Your task to perform on an android device: What's the weather today? Image 0: 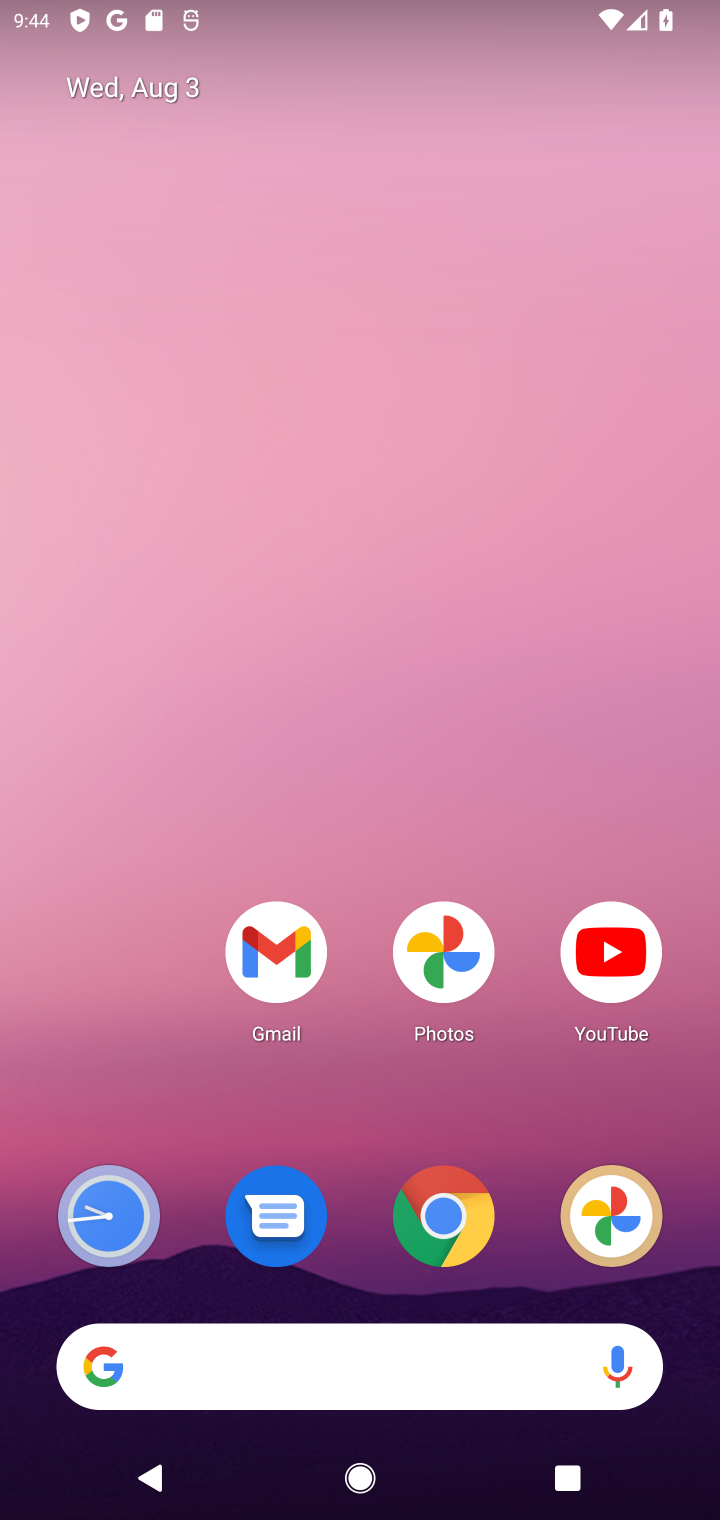
Step 0: click (251, 1349)
Your task to perform on an android device: What's the weather today? Image 1: 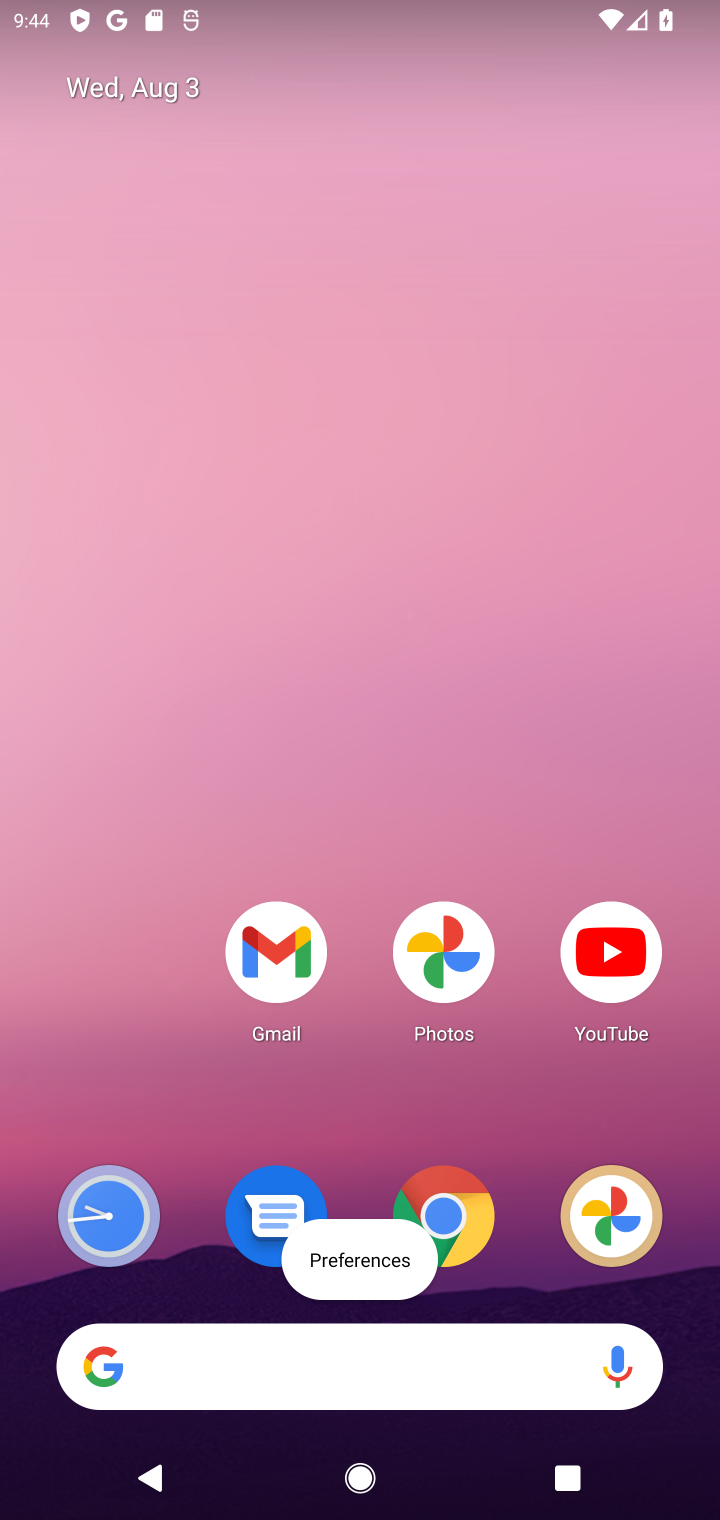
Step 1: click (277, 1361)
Your task to perform on an android device: What's the weather today? Image 2: 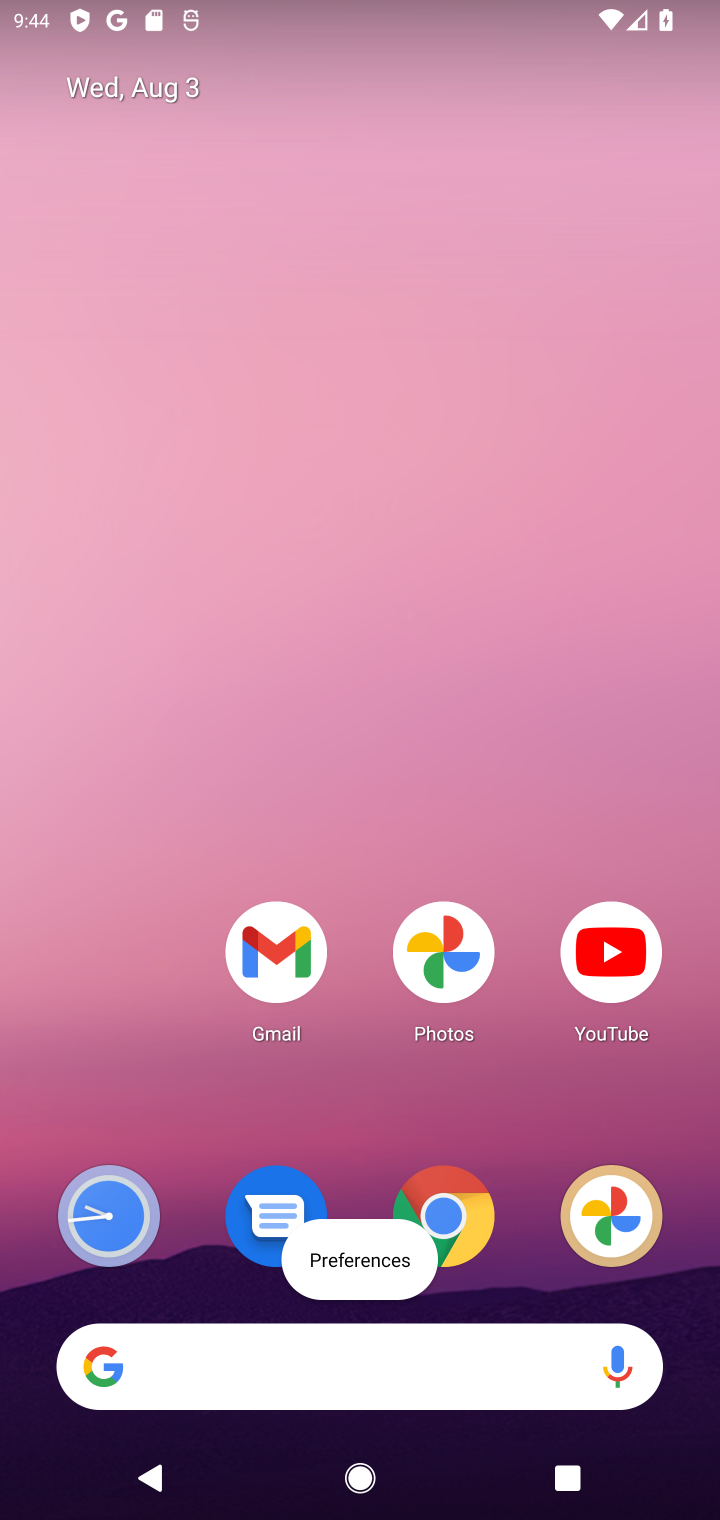
Step 2: click (347, 1379)
Your task to perform on an android device: What's the weather today? Image 3: 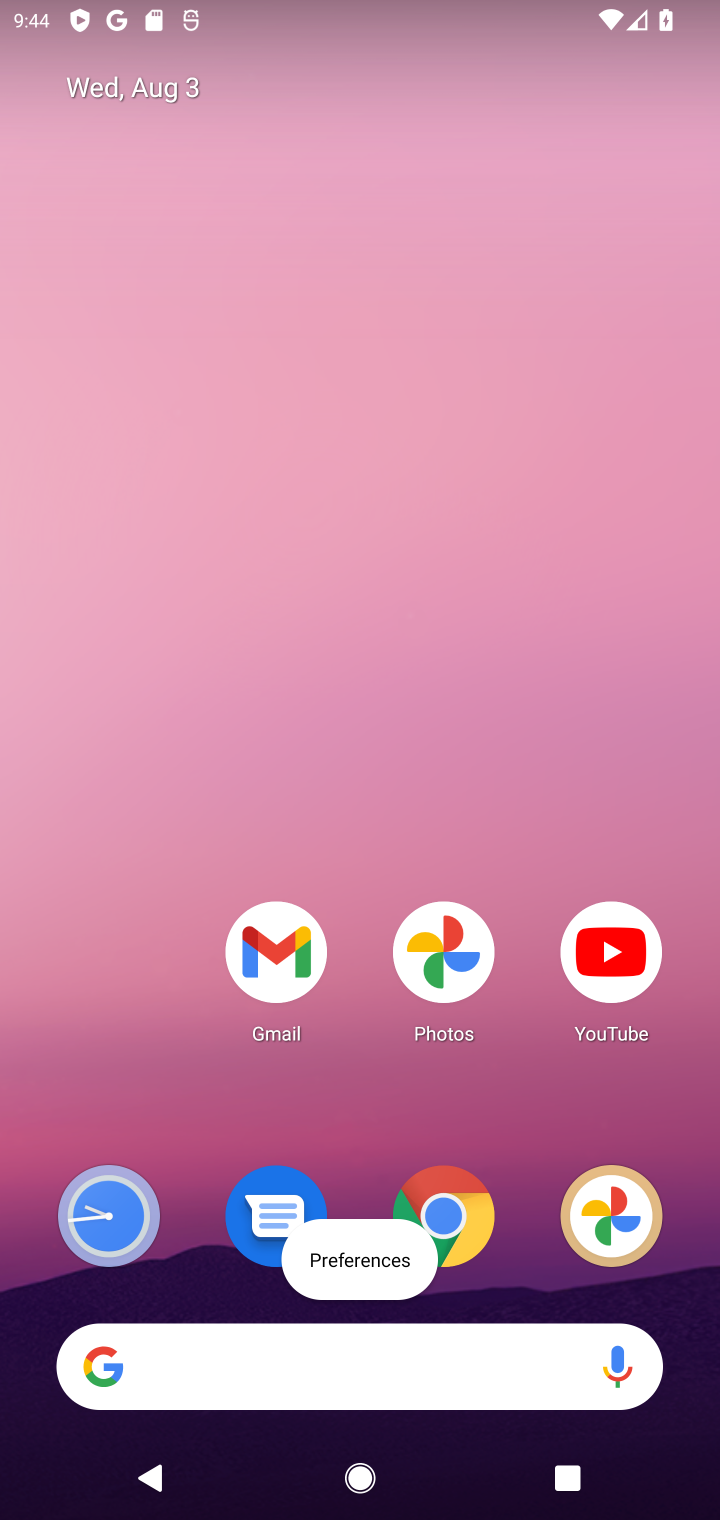
Step 3: click (321, 1351)
Your task to perform on an android device: What's the weather today? Image 4: 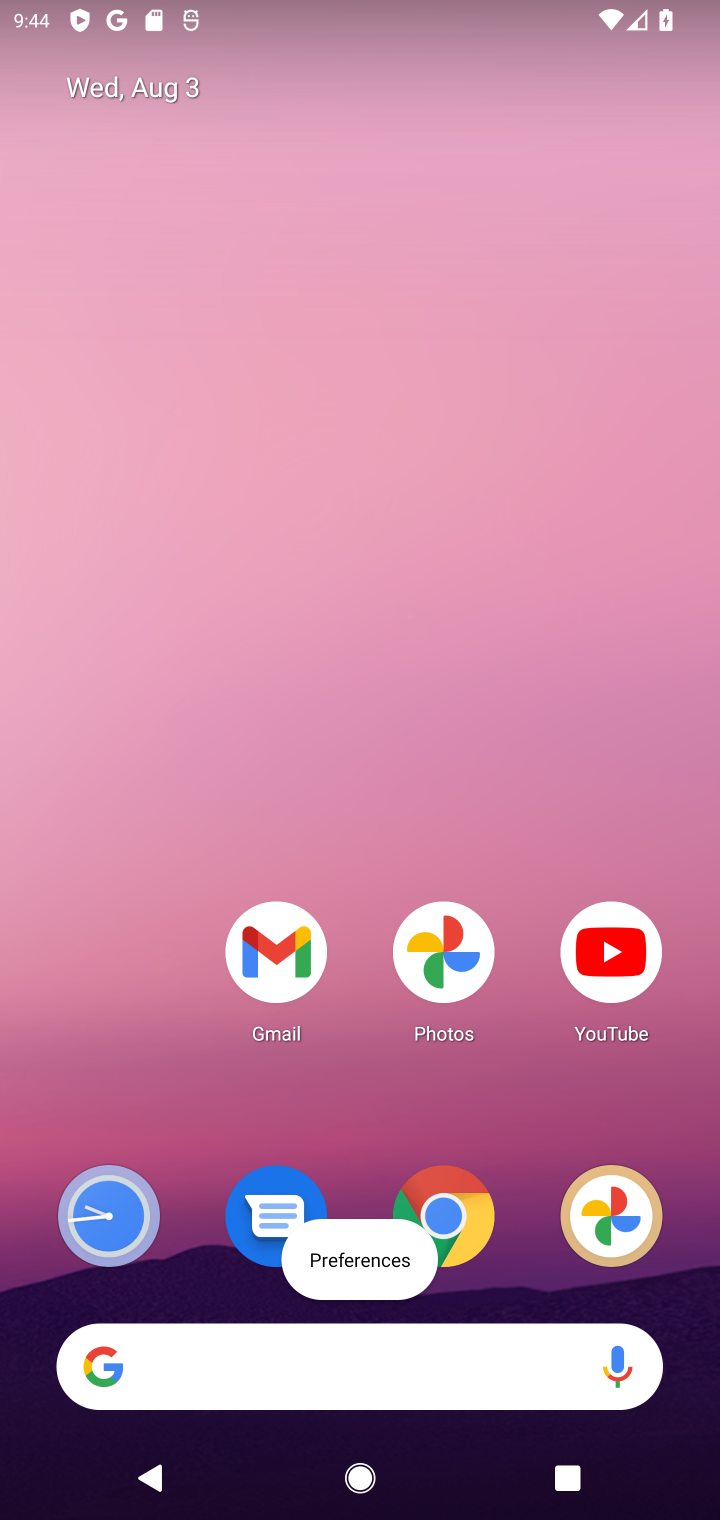
Step 4: click (307, 1350)
Your task to perform on an android device: What's the weather today? Image 5: 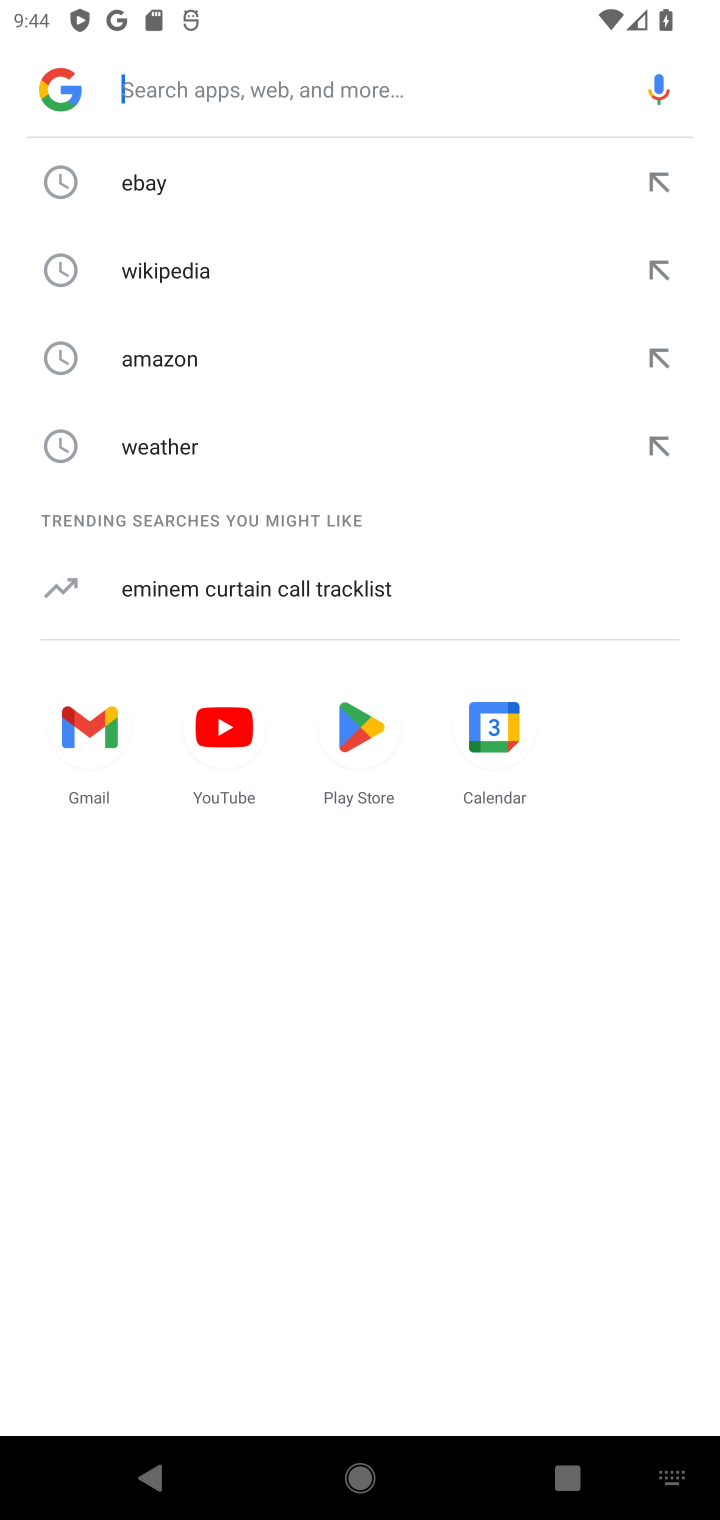
Step 5: click (230, 90)
Your task to perform on an android device: What's the weather today? Image 6: 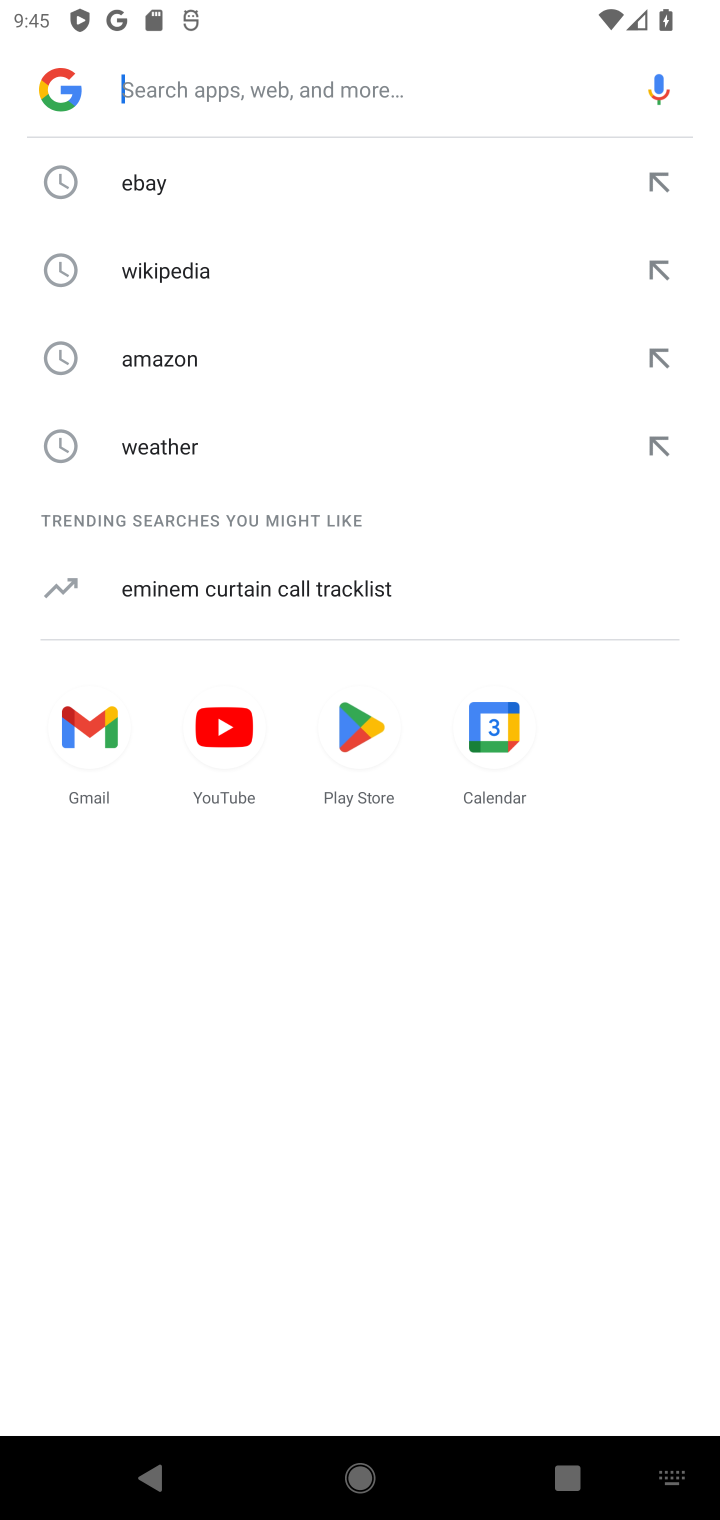
Step 6: type "weather today"
Your task to perform on an android device: What's the weather today? Image 7: 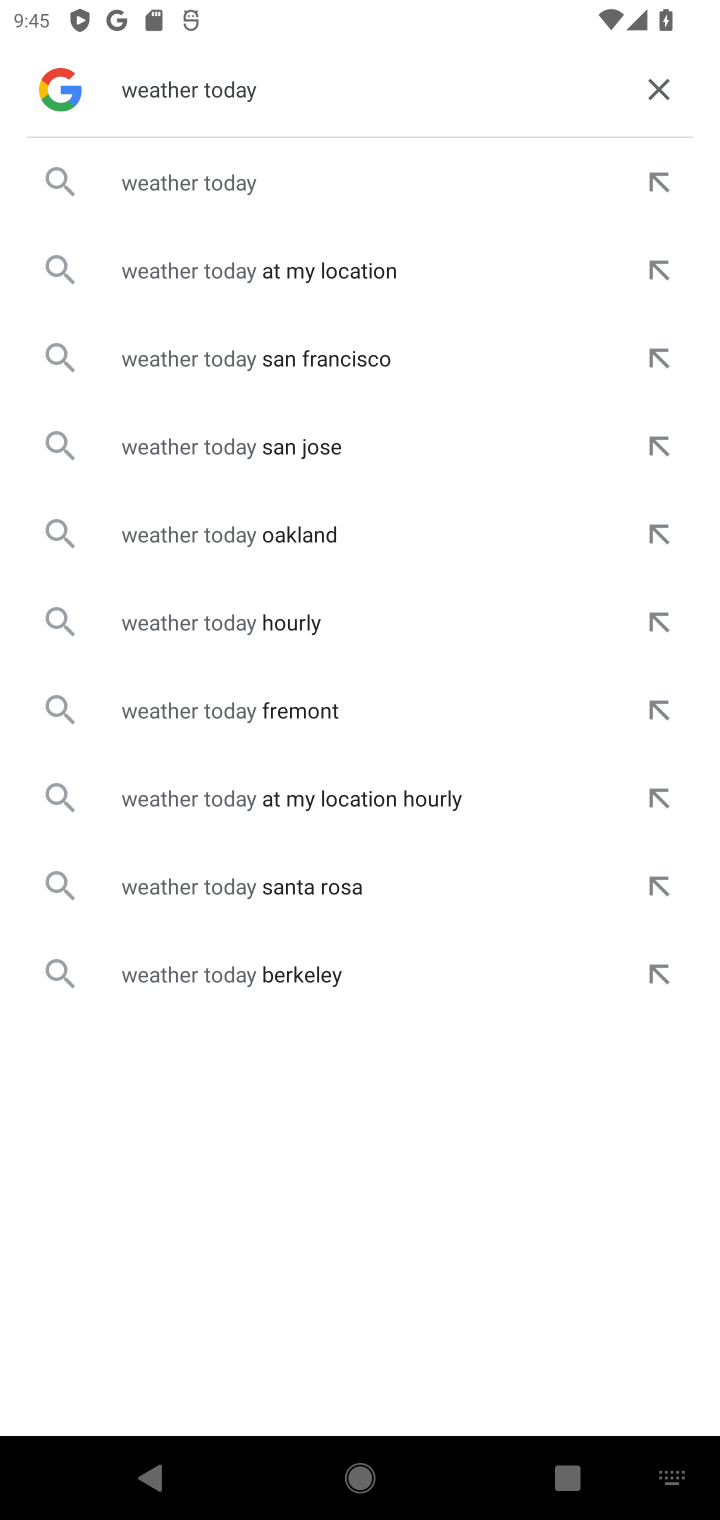
Step 7: click (228, 167)
Your task to perform on an android device: What's the weather today? Image 8: 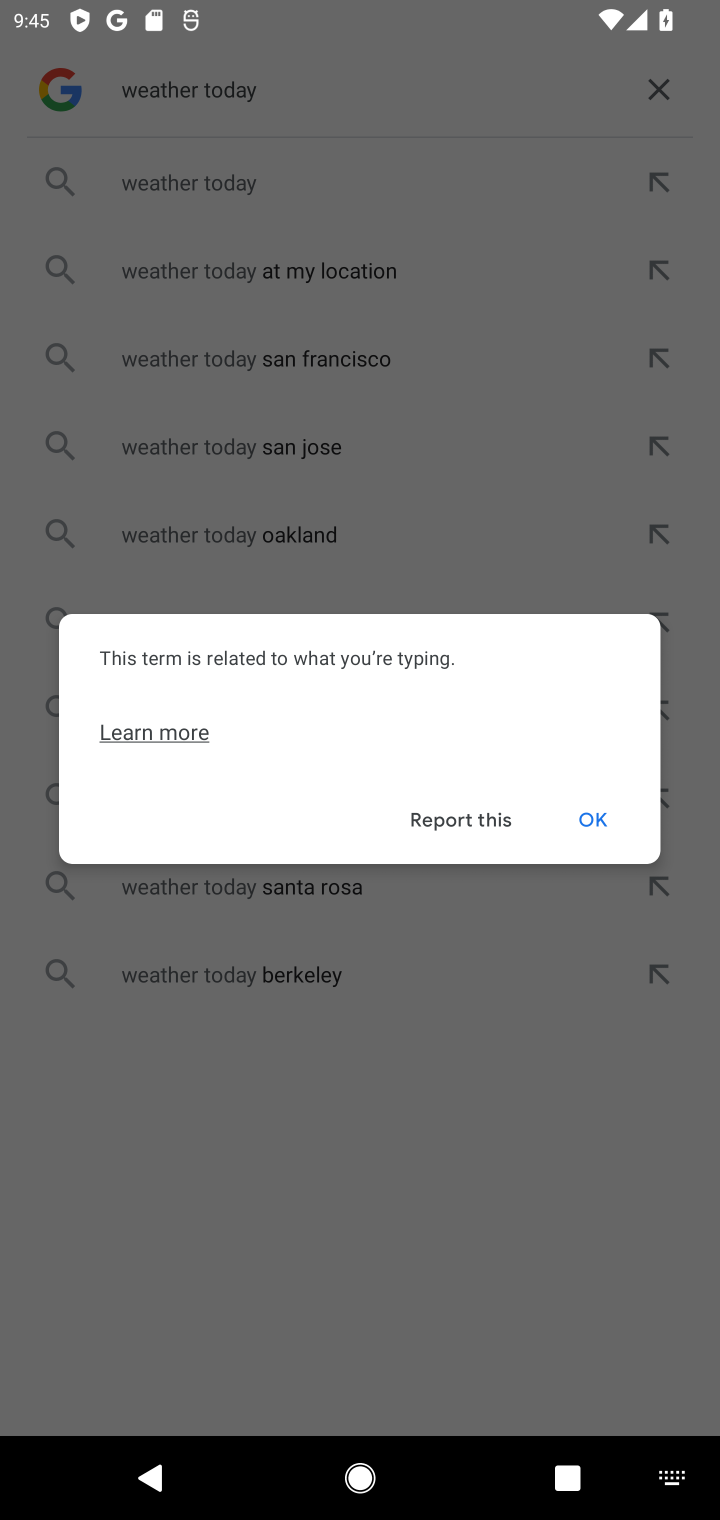
Step 8: click (570, 821)
Your task to perform on an android device: What's the weather today? Image 9: 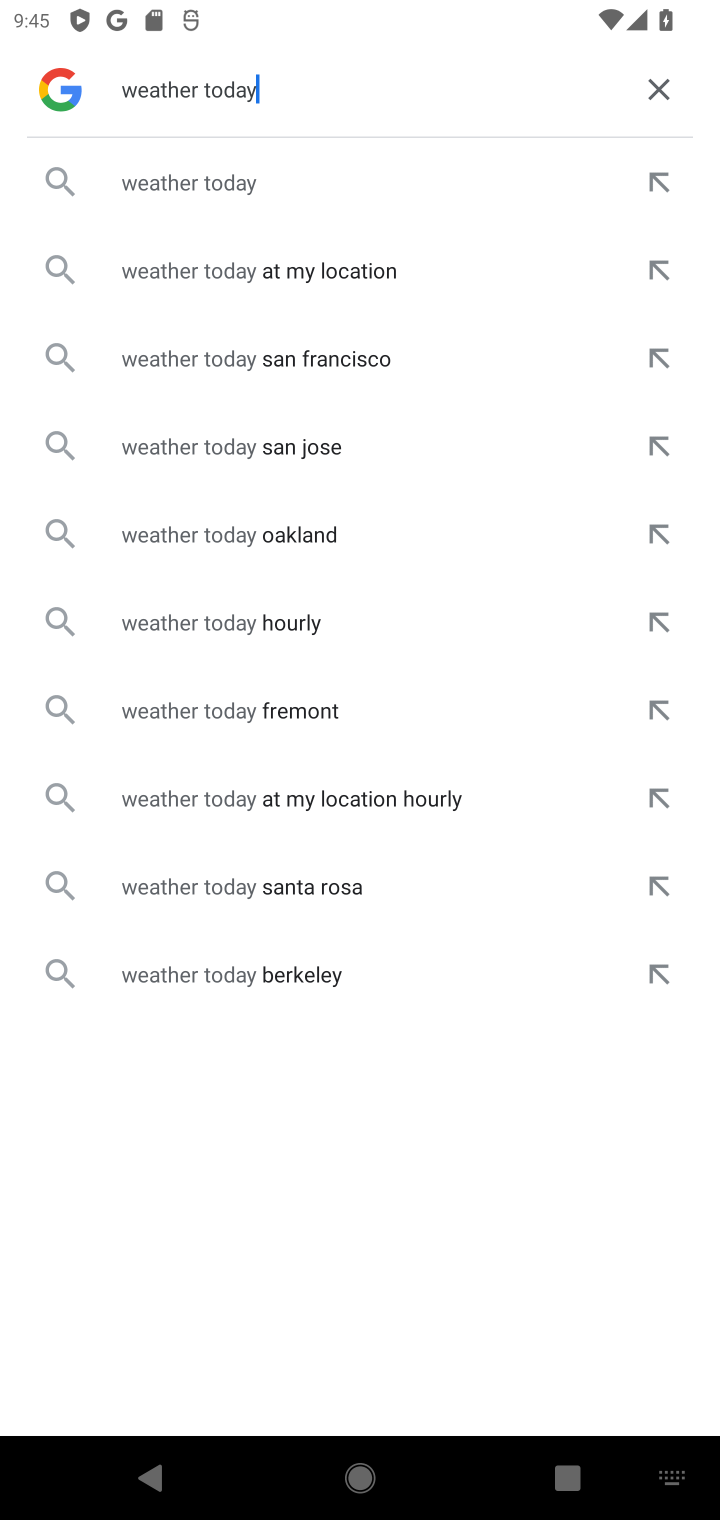
Step 9: click (190, 176)
Your task to perform on an android device: What's the weather today? Image 10: 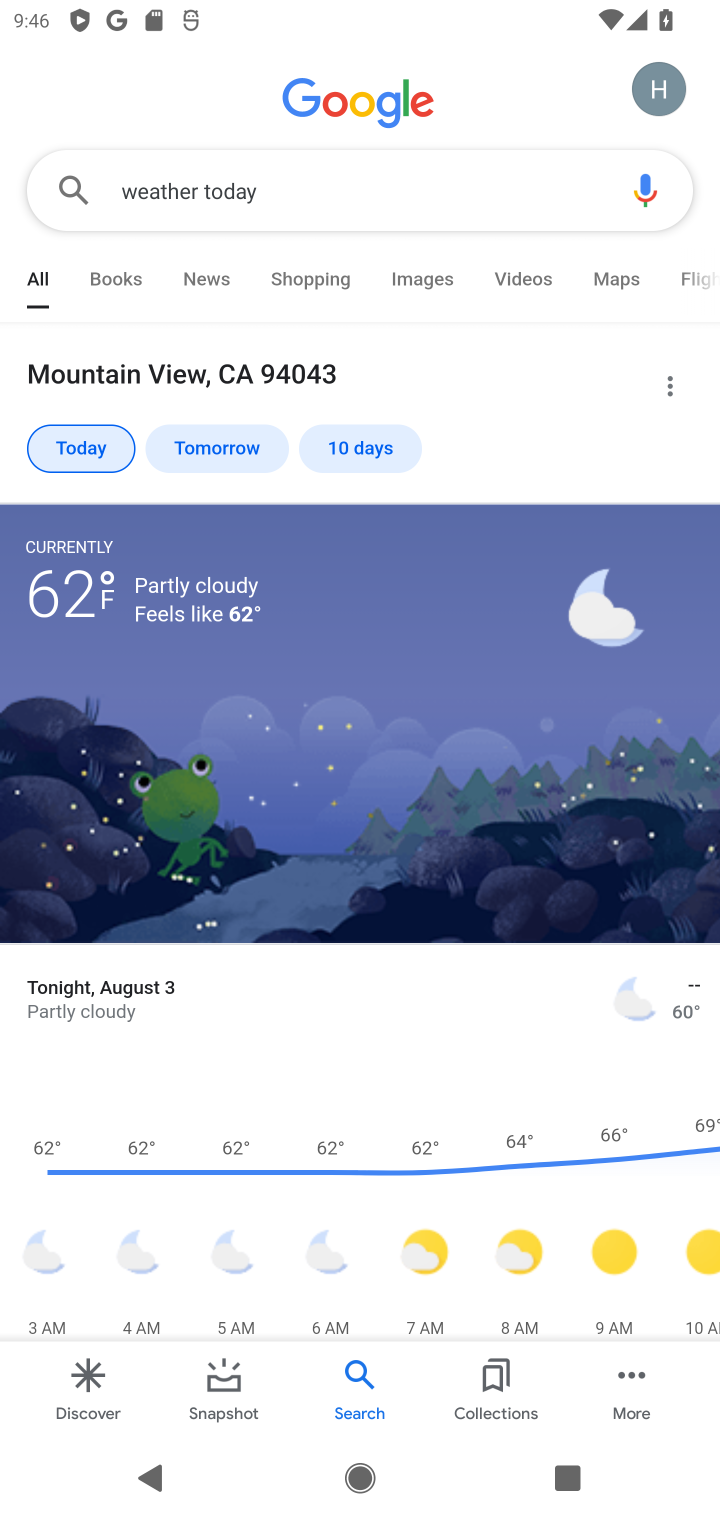
Step 10: task complete